Your task to perform on an android device: check android version Image 0: 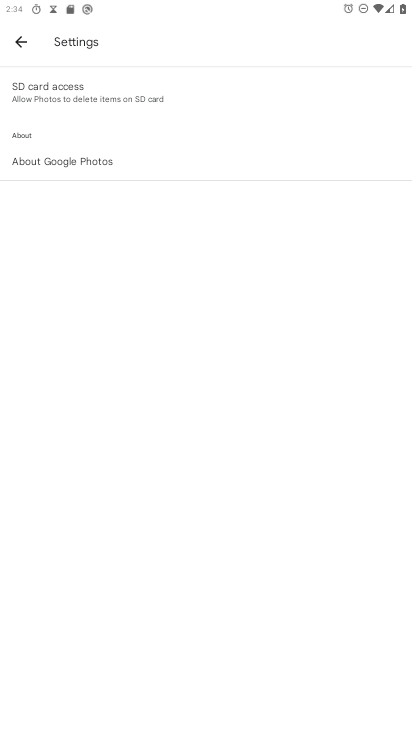
Step 0: press home button
Your task to perform on an android device: check android version Image 1: 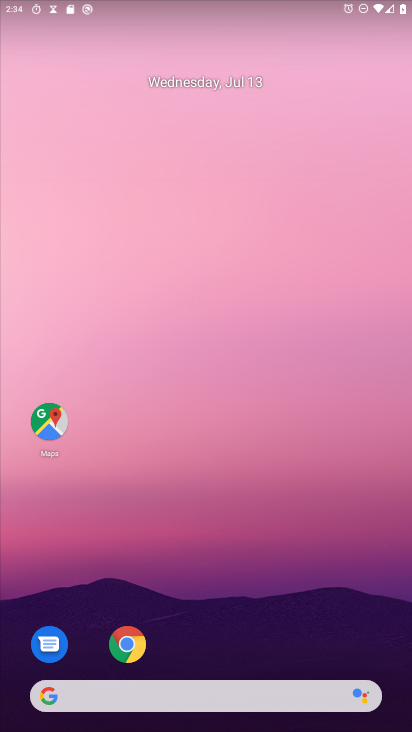
Step 1: drag from (305, 618) to (314, 67)
Your task to perform on an android device: check android version Image 2: 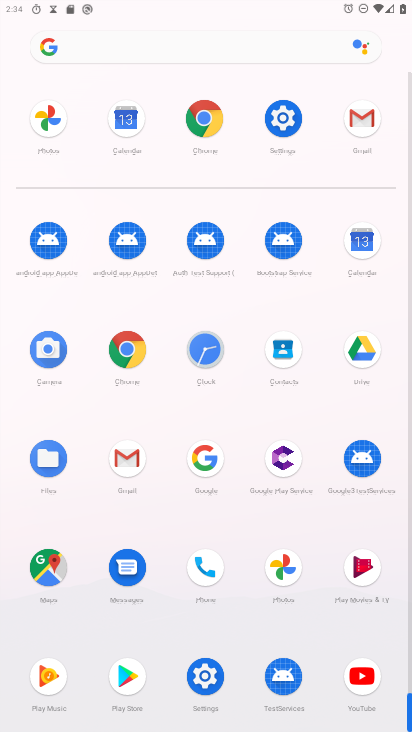
Step 2: click (281, 111)
Your task to perform on an android device: check android version Image 3: 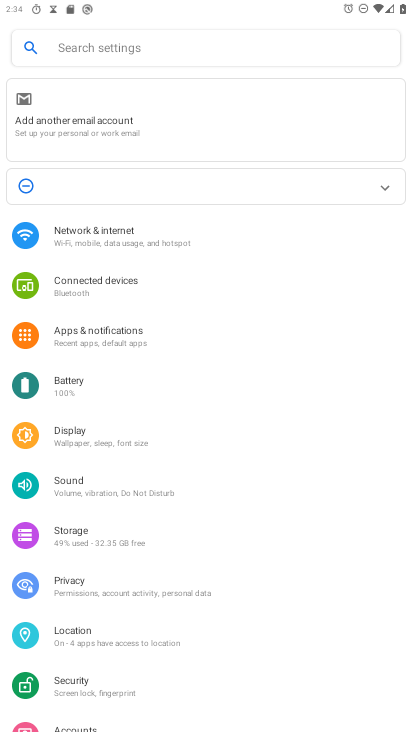
Step 3: drag from (92, 612) to (168, 103)
Your task to perform on an android device: check android version Image 4: 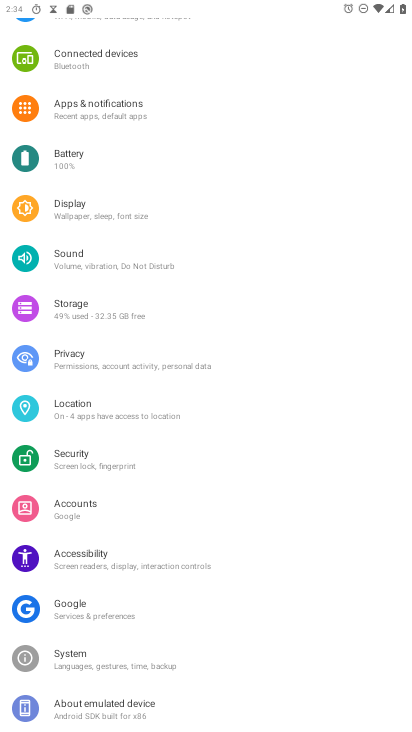
Step 4: click (95, 708)
Your task to perform on an android device: check android version Image 5: 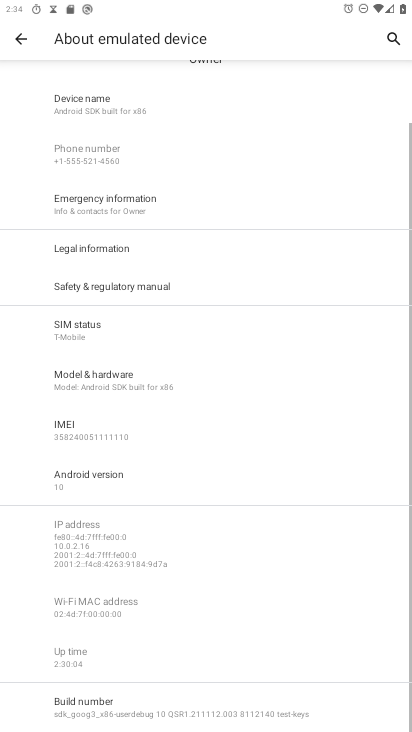
Step 5: drag from (237, 317) to (247, 394)
Your task to perform on an android device: check android version Image 6: 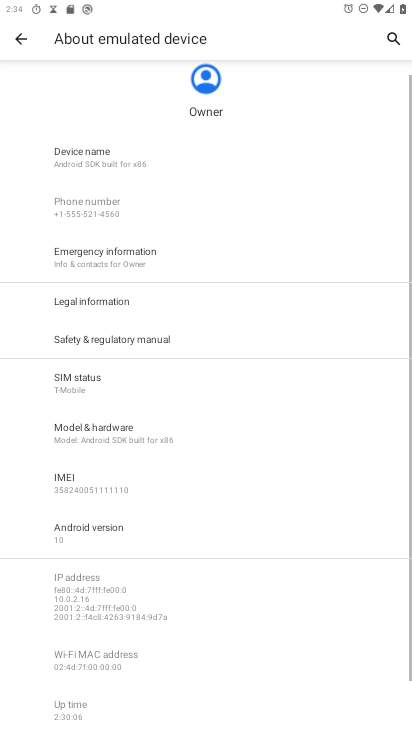
Step 6: click (79, 538)
Your task to perform on an android device: check android version Image 7: 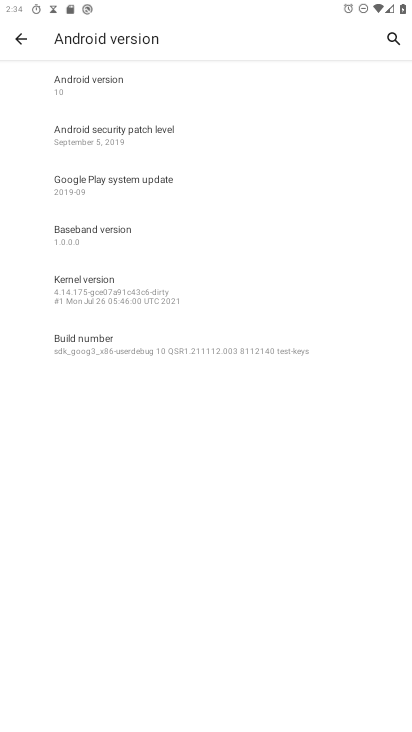
Step 7: task complete